Your task to perform on an android device: Go to CNN.com Image 0: 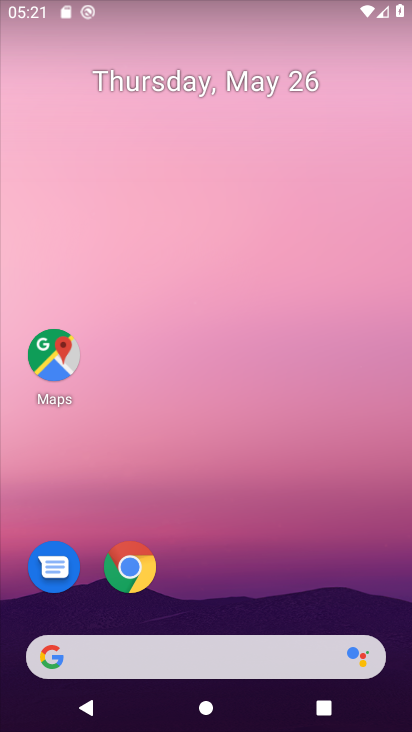
Step 0: press home button
Your task to perform on an android device: Go to CNN.com Image 1: 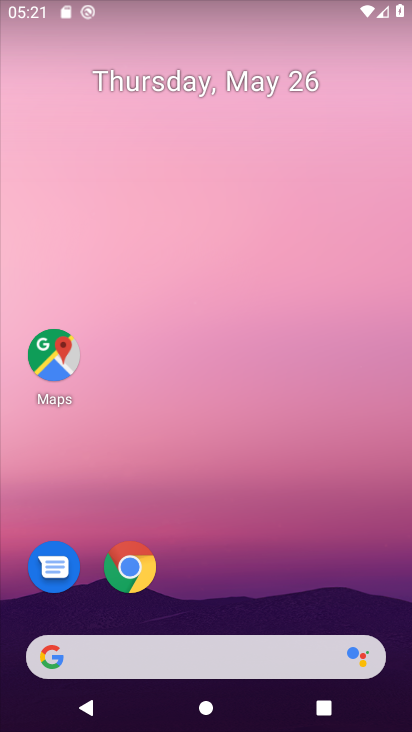
Step 1: click (233, 661)
Your task to perform on an android device: Go to CNN.com Image 2: 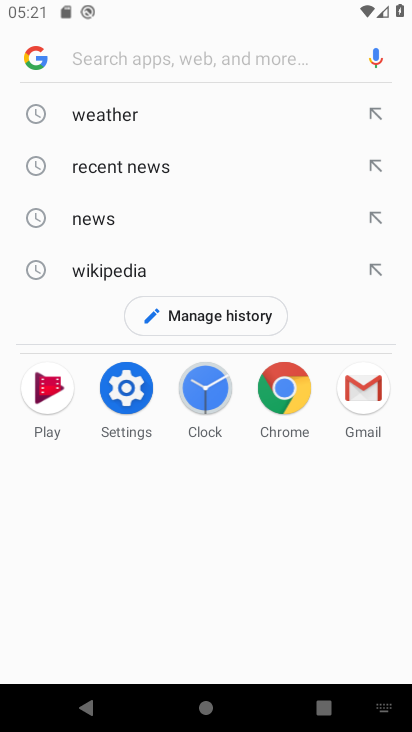
Step 2: type "CNN.com"
Your task to perform on an android device: Go to CNN.com Image 3: 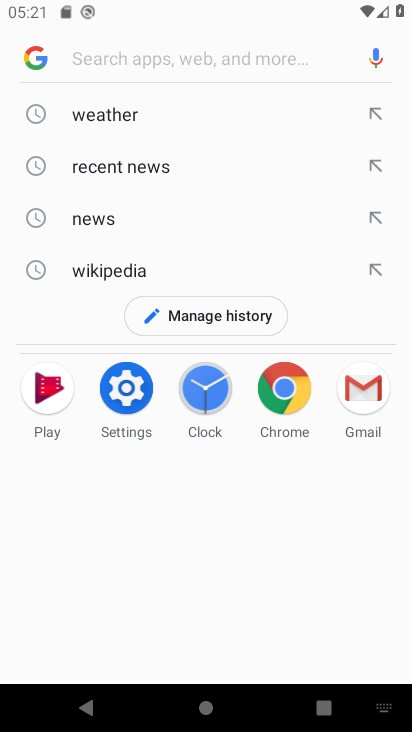
Step 3: click (202, 62)
Your task to perform on an android device: Go to CNN.com Image 4: 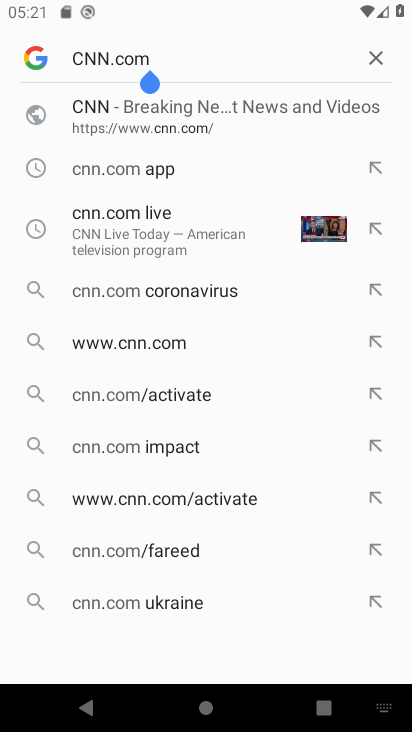
Step 4: click (160, 118)
Your task to perform on an android device: Go to CNN.com Image 5: 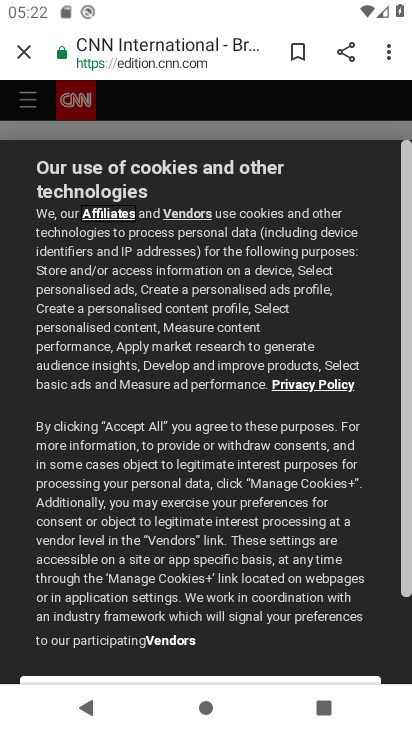
Step 5: task complete